Your task to perform on an android device: What's the weather going to be this weekend? Image 0: 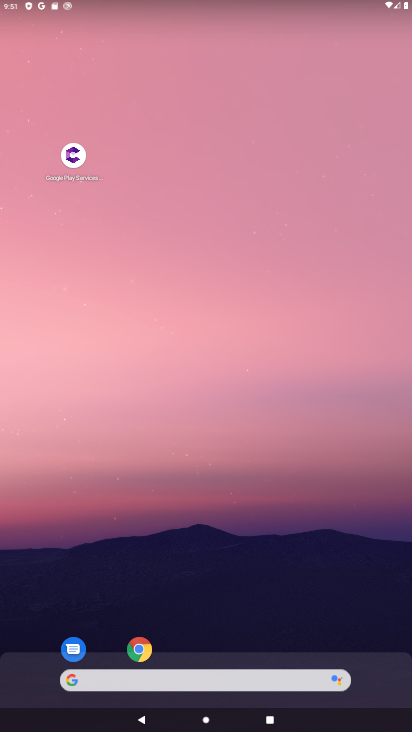
Step 0: click (238, 702)
Your task to perform on an android device: What's the weather going to be this weekend? Image 1: 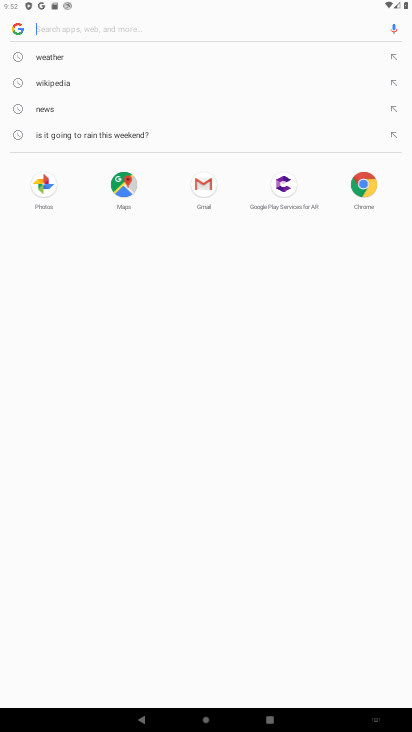
Step 1: type "what's the weather going to be this weekend"
Your task to perform on an android device: What's the weather going to be this weekend? Image 2: 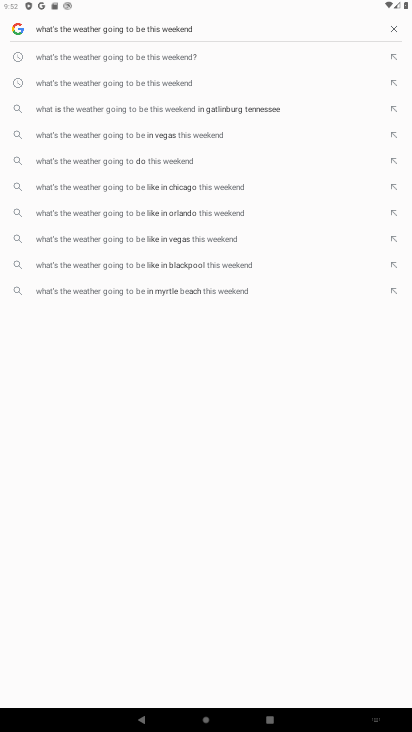
Step 2: click (157, 57)
Your task to perform on an android device: What's the weather going to be this weekend? Image 3: 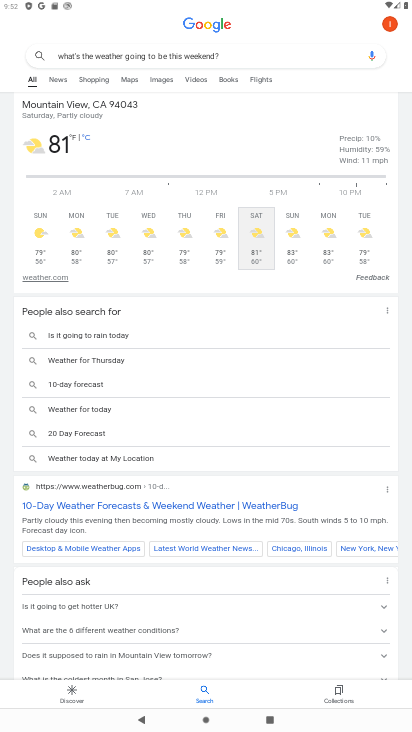
Step 3: task complete